Your task to perform on an android device: What is the recent news? Image 0: 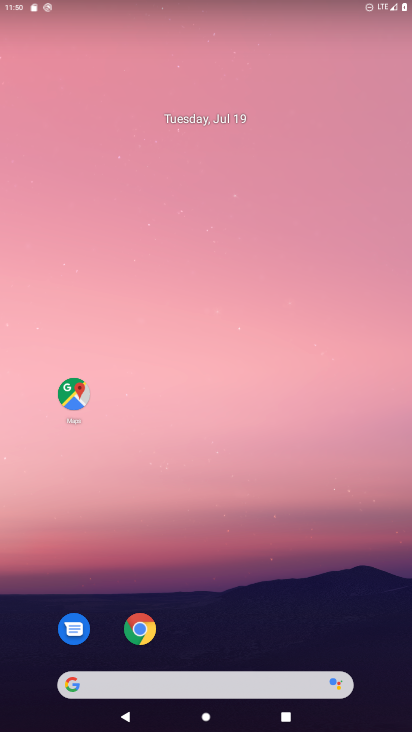
Step 0: click (141, 681)
Your task to perform on an android device: What is the recent news? Image 1: 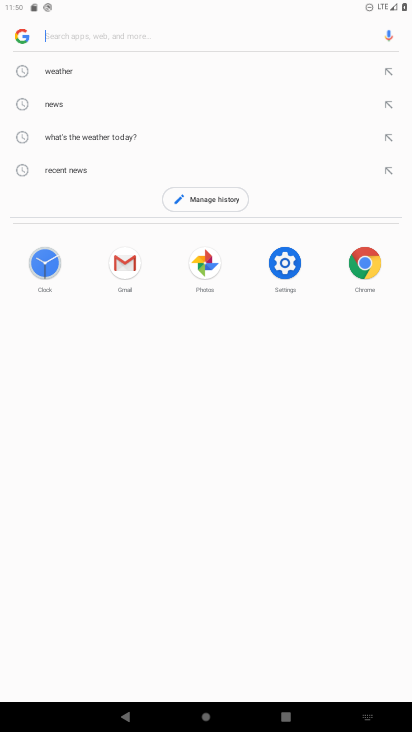
Step 1: click (60, 167)
Your task to perform on an android device: What is the recent news? Image 2: 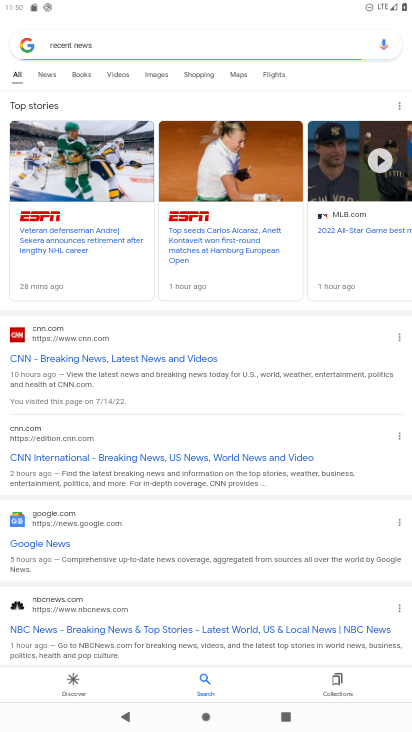
Step 2: task complete